Your task to perform on an android device: Go to notification settings Image 0: 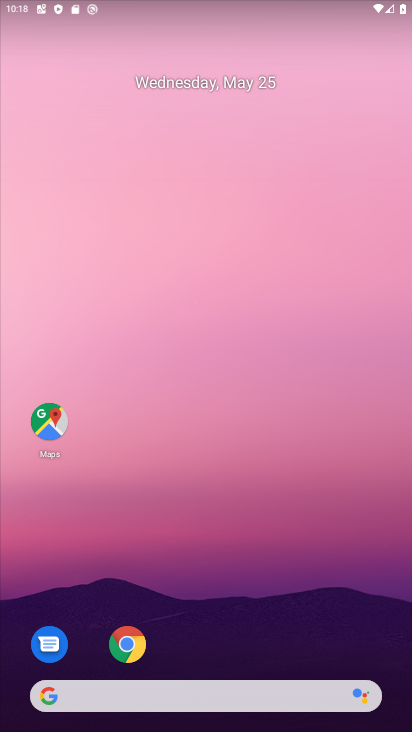
Step 0: drag from (276, 590) to (201, 85)
Your task to perform on an android device: Go to notification settings Image 1: 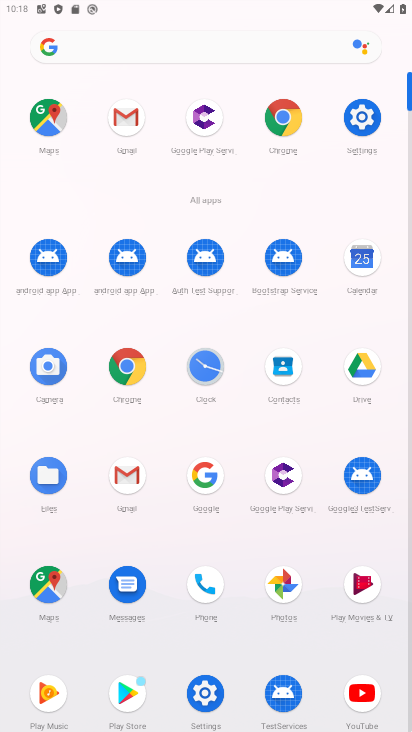
Step 1: click (371, 115)
Your task to perform on an android device: Go to notification settings Image 2: 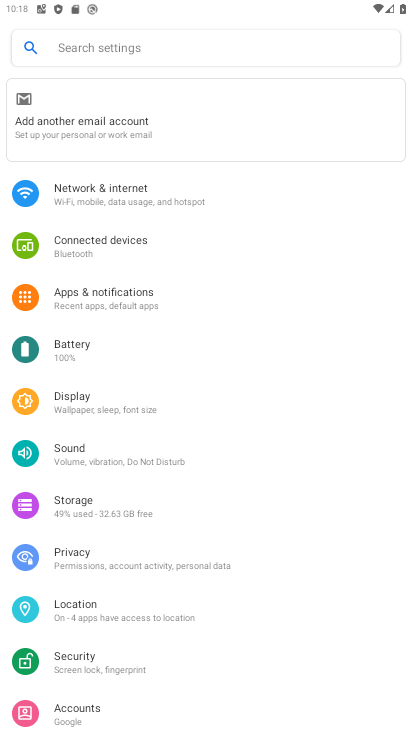
Step 2: click (130, 295)
Your task to perform on an android device: Go to notification settings Image 3: 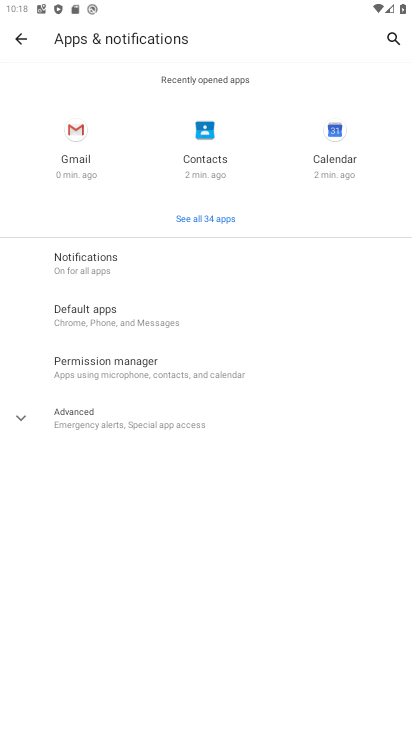
Step 3: click (95, 254)
Your task to perform on an android device: Go to notification settings Image 4: 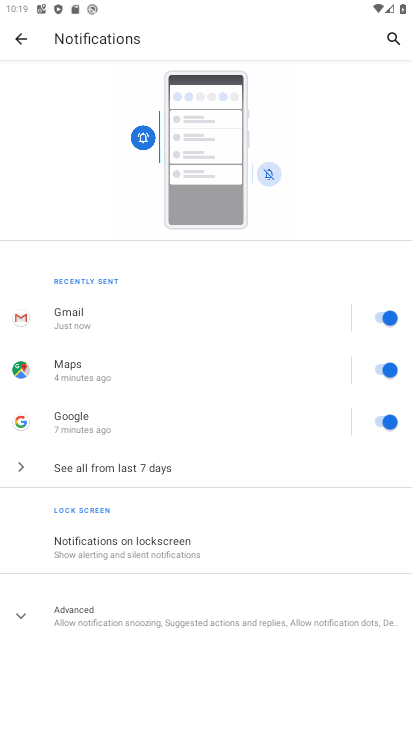
Step 4: task complete